Your task to perform on an android device: Go to battery settings Image 0: 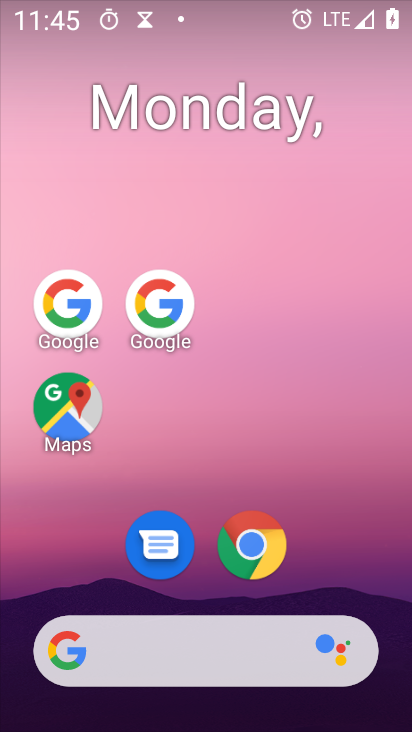
Step 0: press home button
Your task to perform on an android device: Go to battery settings Image 1: 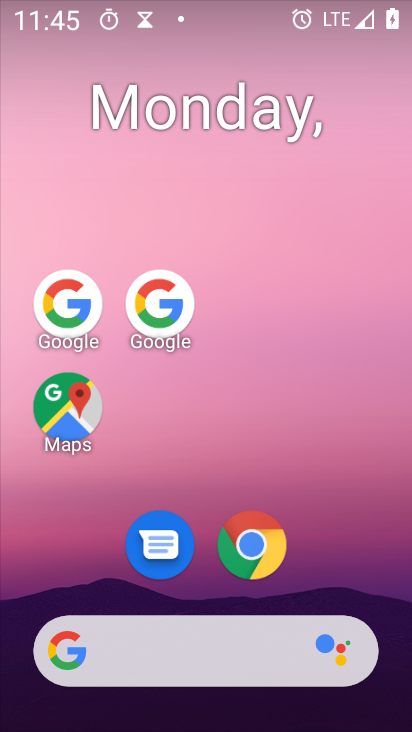
Step 1: drag from (174, 659) to (293, 169)
Your task to perform on an android device: Go to battery settings Image 2: 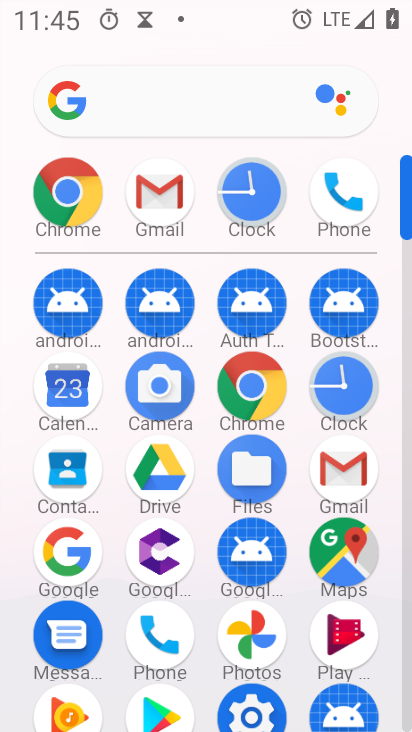
Step 2: drag from (226, 559) to (317, 255)
Your task to perform on an android device: Go to battery settings Image 3: 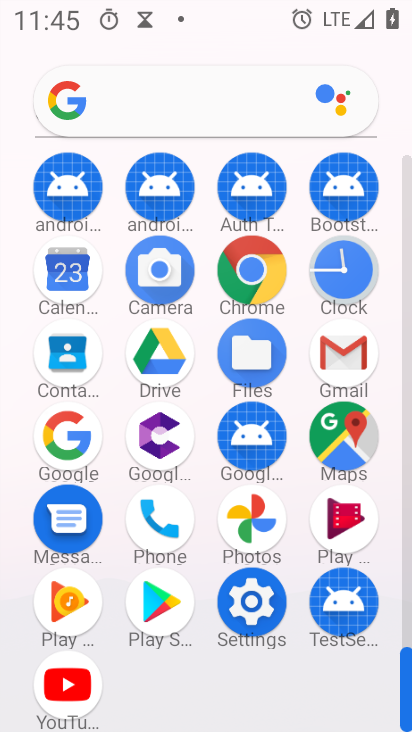
Step 3: click (256, 605)
Your task to perform on an android device: Go to battery settings Image 4: 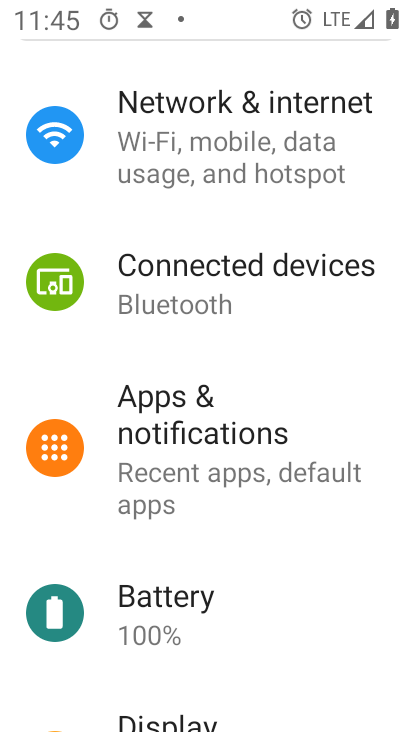
Step 4: click (192, 599)
Your task to perform on an android device: Go to battery settings Image 5: 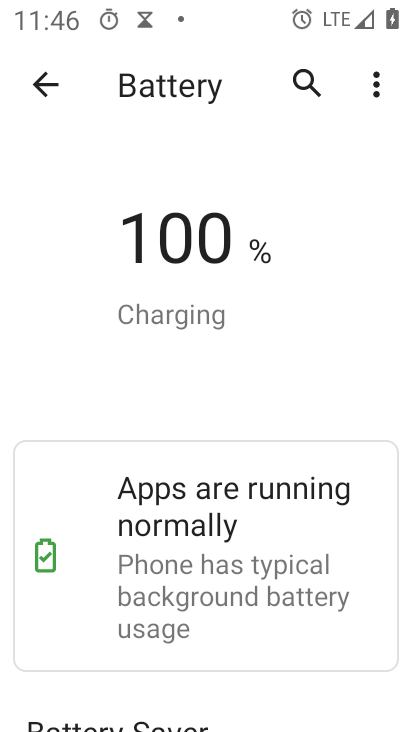
Step 5: task complete